Your task to perform on an android device: stop showing notifications on the lock screen Image 0: 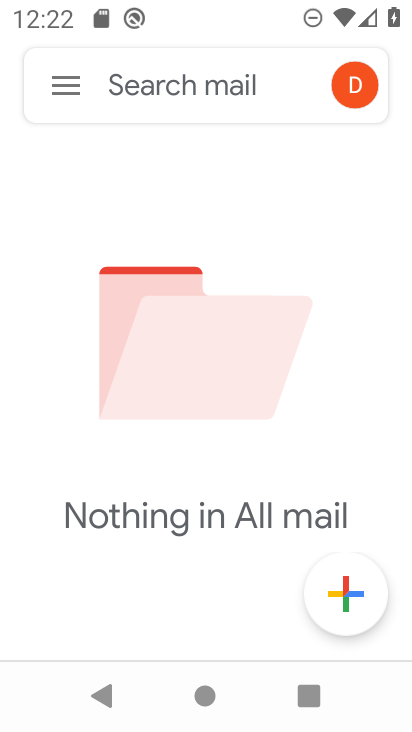
Step 0: press home button
Your task to perform on an android device: stop showing notifications on the lock screen Image 1: 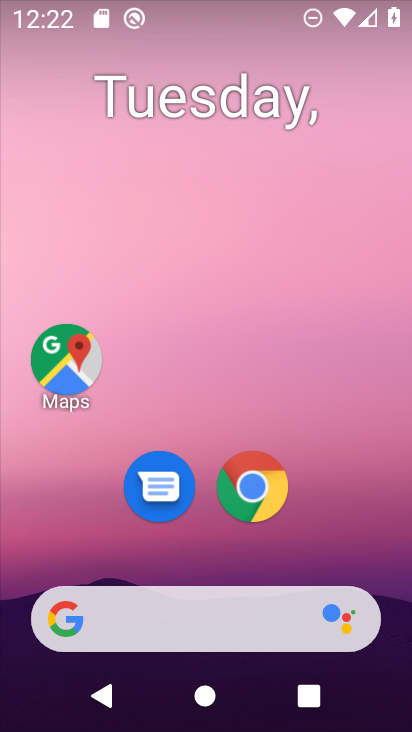
Step 1: drag from (212, 548) to (233, 116)
Your task to perform on an android device: stop showing notifications on the lock screen Image 2: 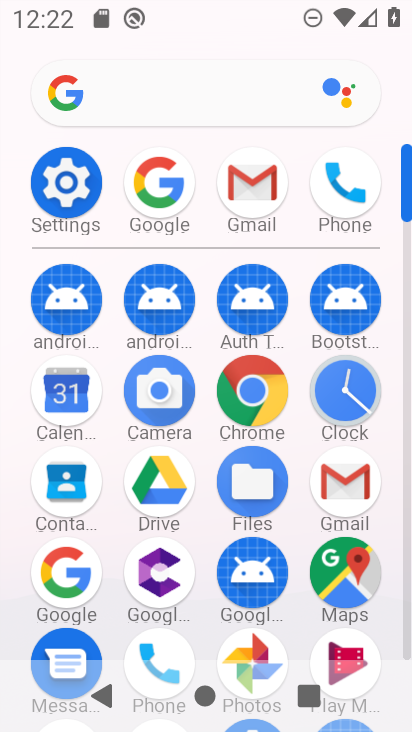
Step 2: drag from (203, 252) to (213, 36)
Your task to perform on an android device: stop showing notifications on the lock screen Image 3: 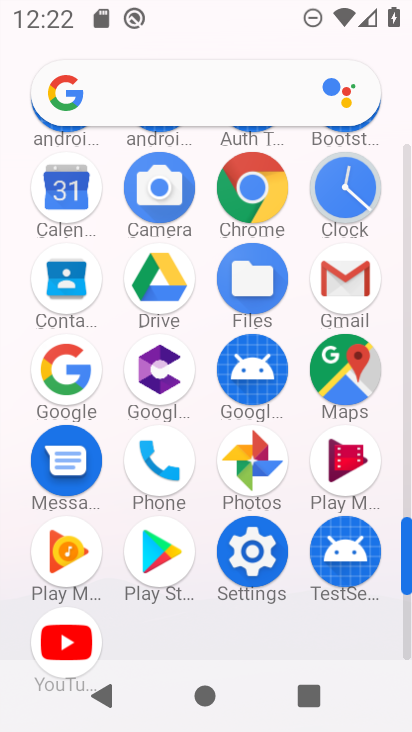
Step 3: click (259, 572)
Your task to perform on an android device: stop showing notifications on the lock screen Image 4: 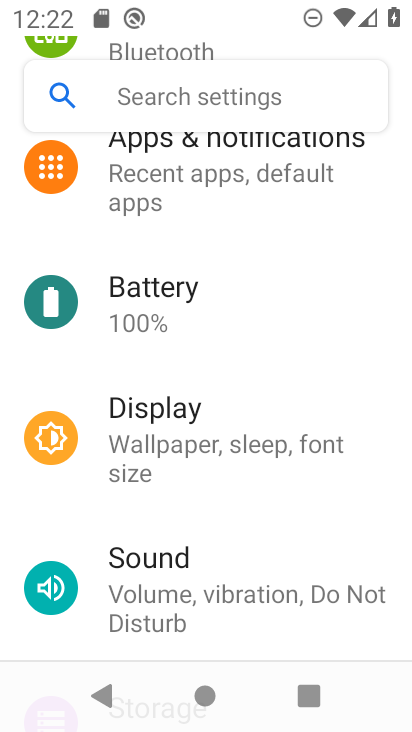
Step 4: click (206, 189)
Your task to perform on an android device: stop showing notifications on the lock screen Image 5: 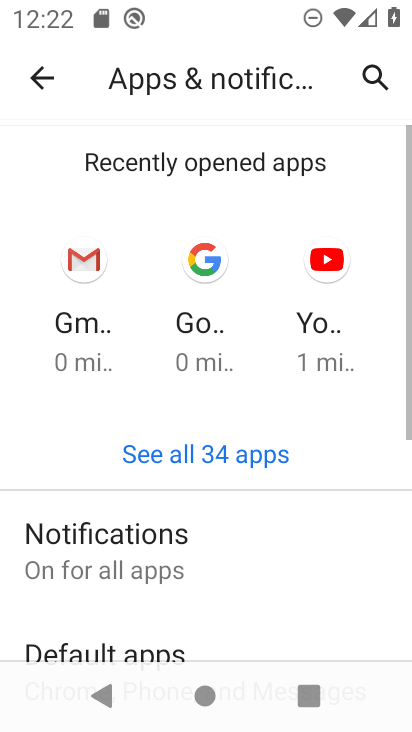
Step 5: click (147, 539)
Your task to perform on an android device: stop showing notifications on the lock screen Image 6: 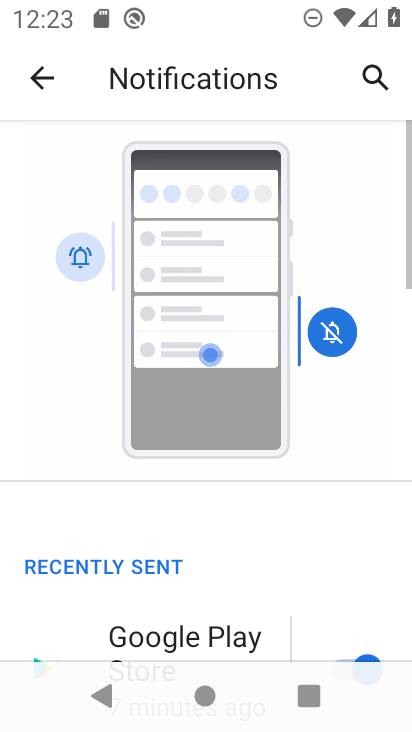
Step 6: drag from (141, 526) to (170, 101)
Your task to perform on an android device: stop showing notifications on the lock screen Image 7: 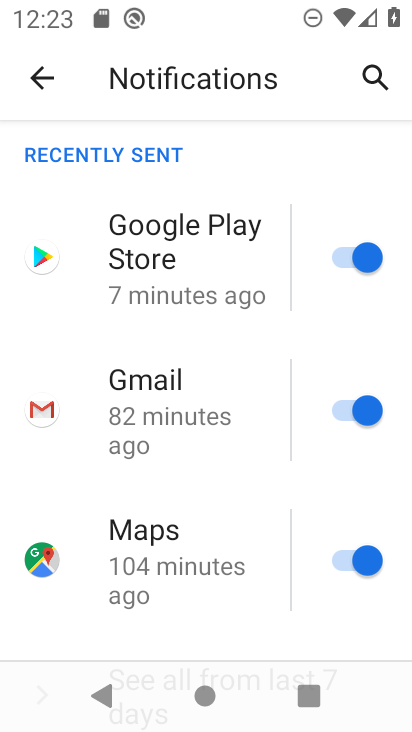
Step 7: drag from (193, 492) to (219, 92)
Your task to perform on an android device: stop showing notifications on the lock screen Image 8: 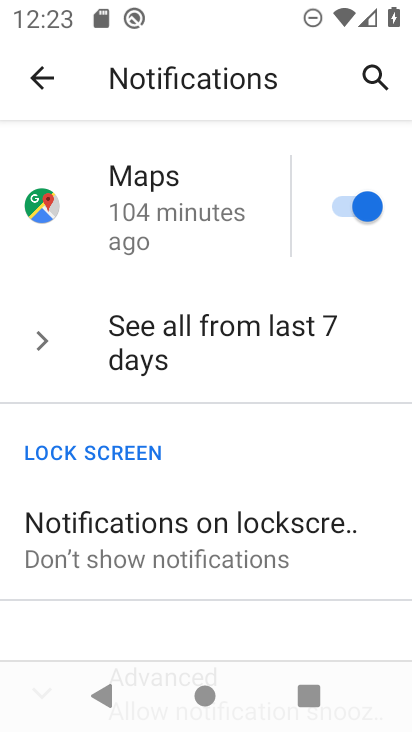
Step 8: click (143, 563)
Your task to perform on an android device: stop showing notifications on the lock screen Image 9: 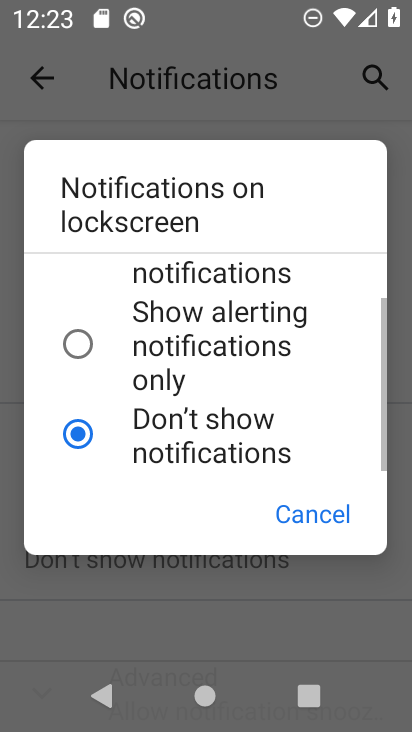
Step 9: click (172, 446)
Your task to perform on an android device: stop showing notifications on the lock screen Image 10: 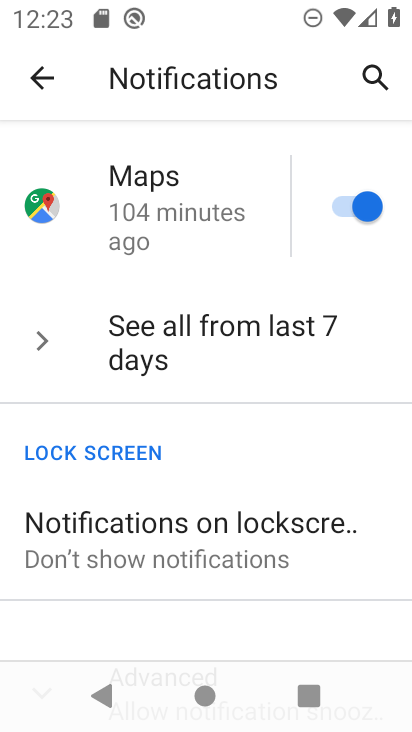
Step 10: task complete